Your task to perform on an android device: Open internet settings Image 0: 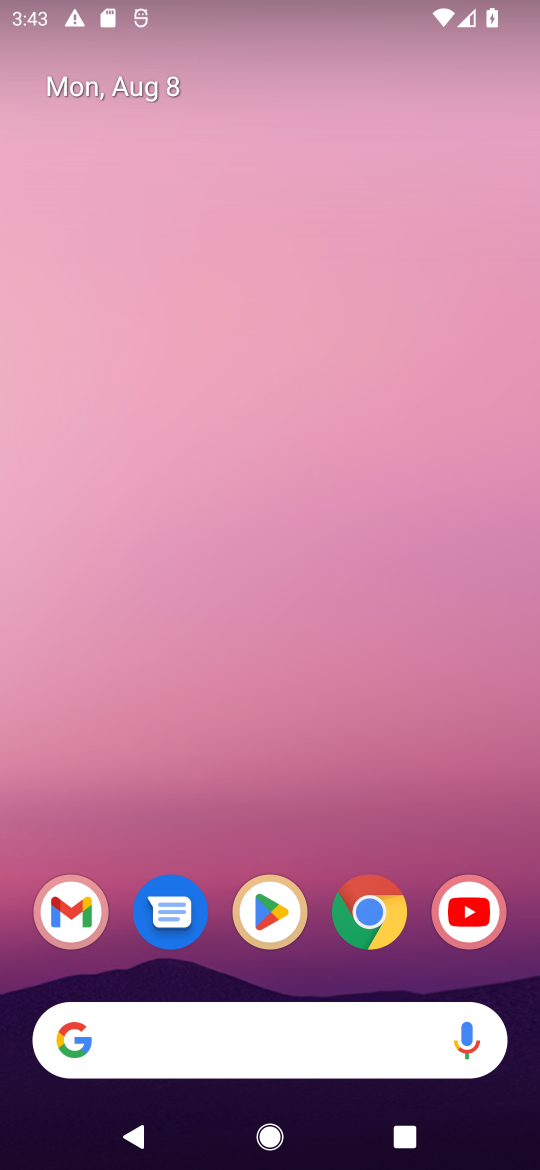
Step 0: drag from (240, 817) to (260, 62)
Your task to perform on an android device: Open internet settings Image 1: 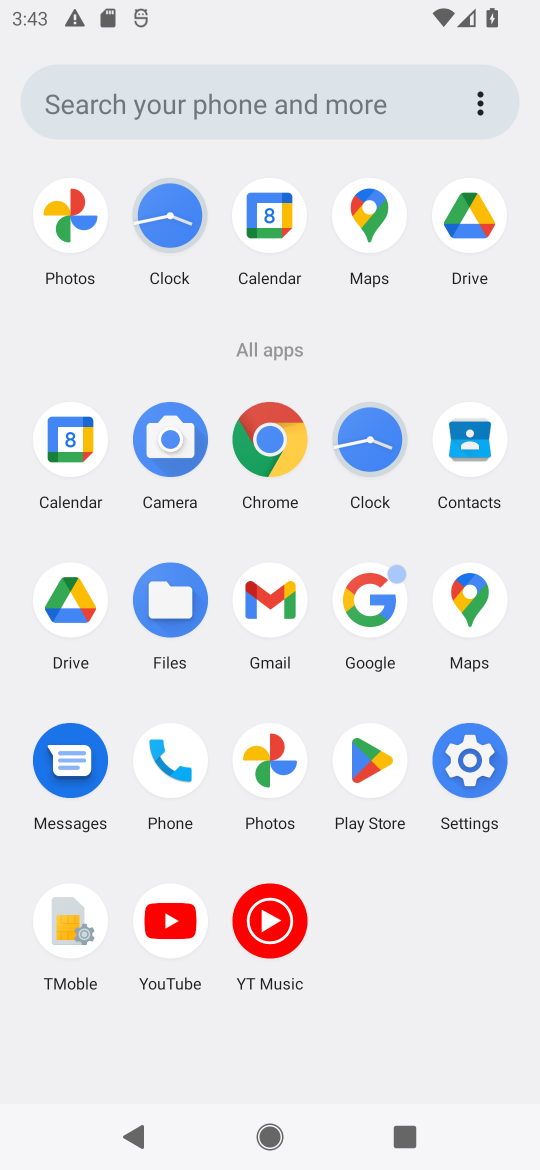
Step 1: click (447, 769)
Your task to perform on an android device: Open internet settings Image 2: 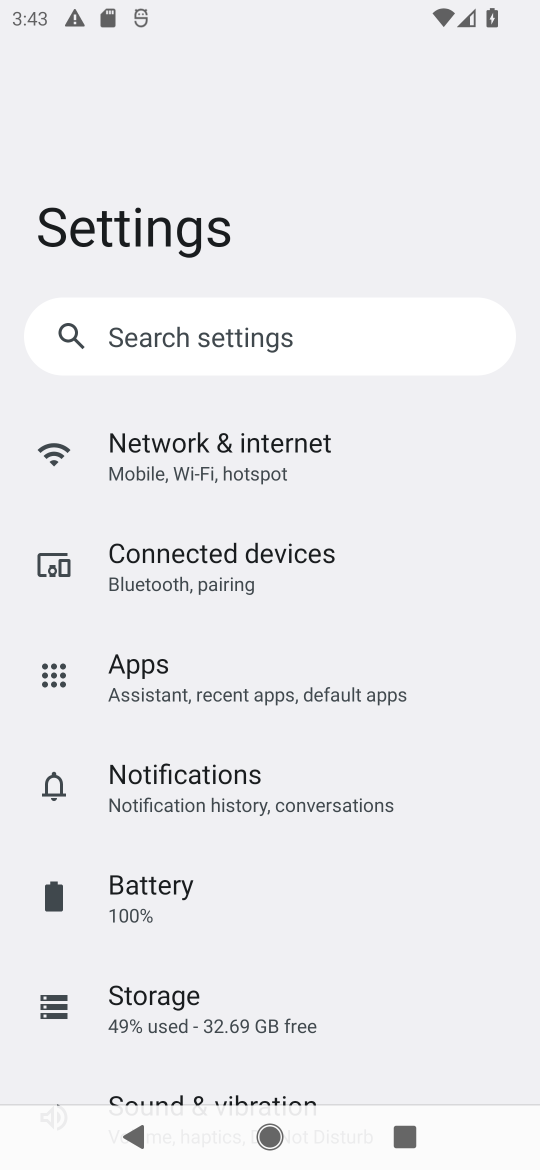
Step 2: click (221, 457)
Your task to perform on an android device: Open internet settings Image 3: 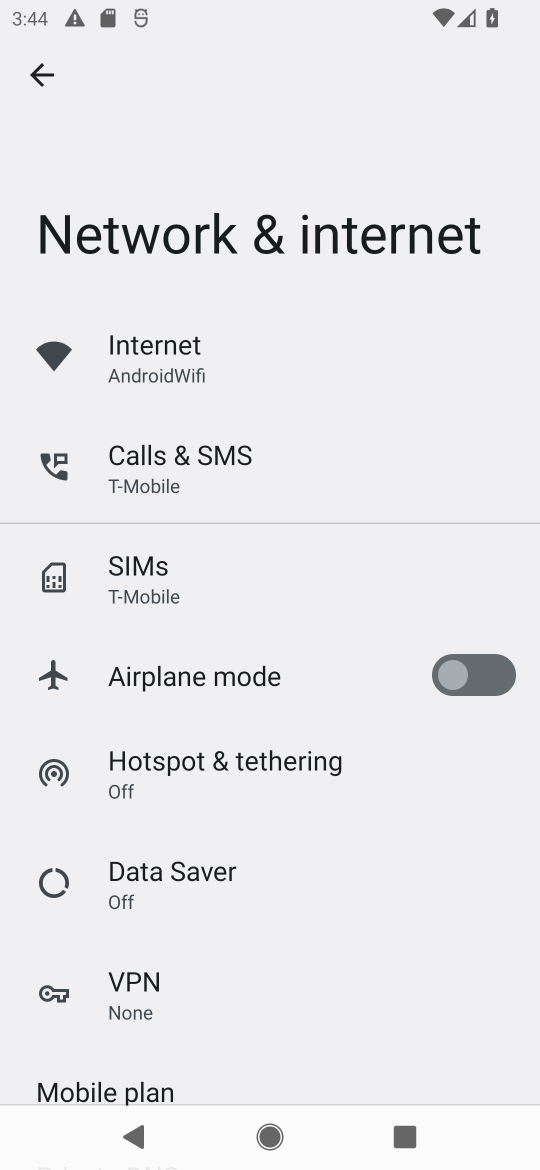
Step 3: click (301, 345)
Your task to perform on an android device: Open internet settings Image 4: 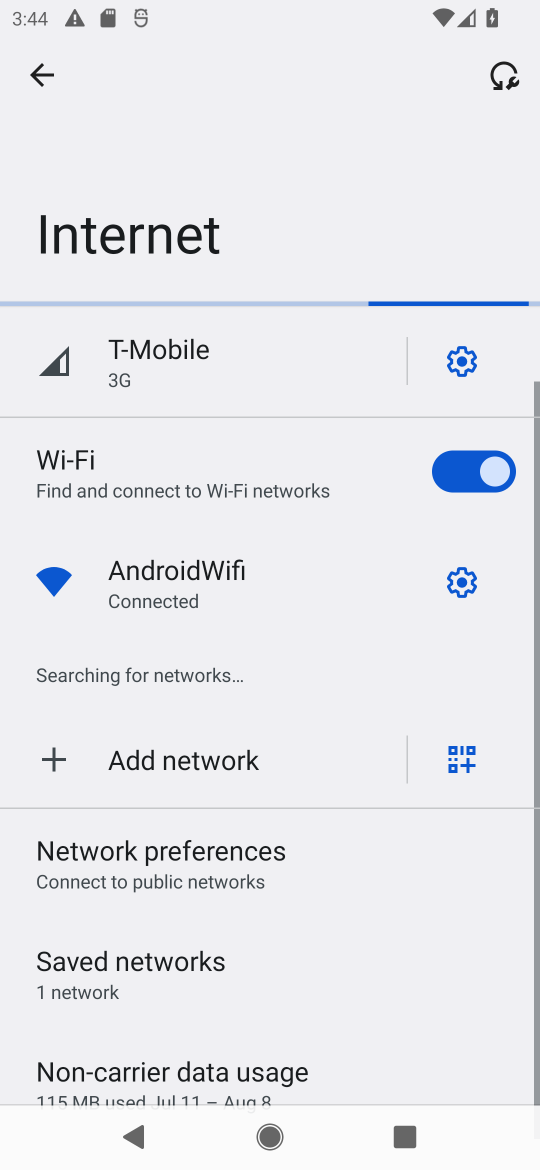
Step 4: task complete